Your task to perform on an android device: turn off data saver in the chrome app Image 0: 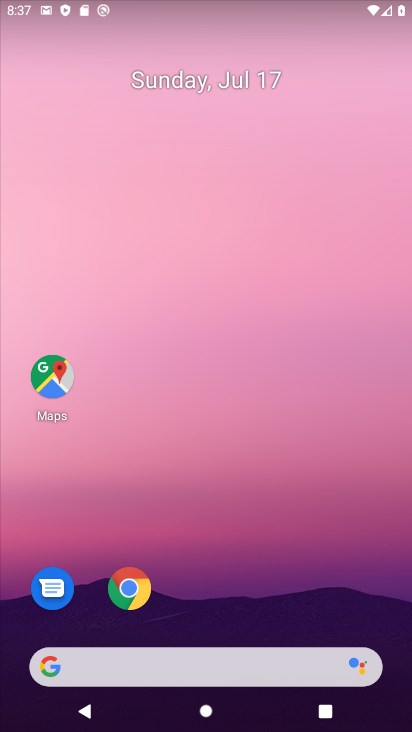
Step 0: press home button
Your task to perform on an android device: turn off data saver in the chrome app Image 1: 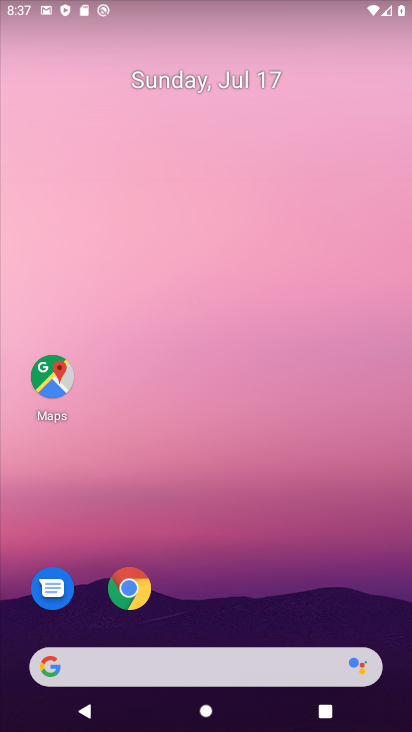
Step 1: drag from (289, 395) to (215, 4)
Your task to perform on an android device: turn off data saver in the chrome app Image 2: 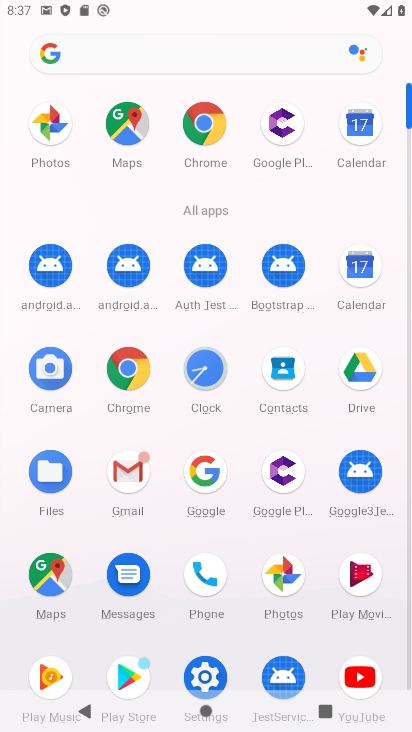
Step 2: click (207, 146)
Your task to perform on an android device: turn off data saver in the chrome app Image 3: 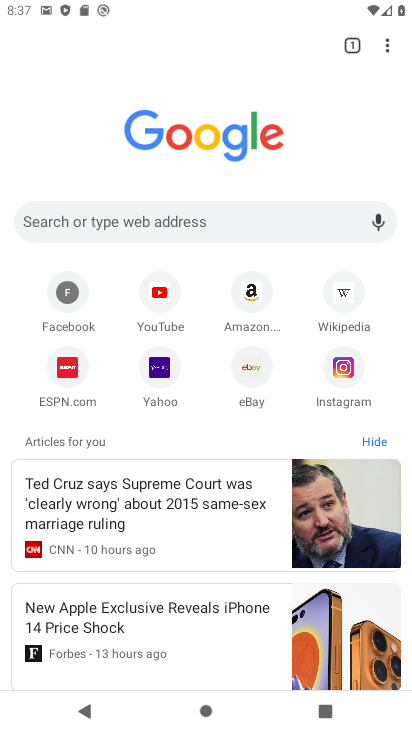
Step 3: drag from (392, 45) to (222, 382)
Your task to perform on an android device: turn off data saver in the chrome app Image 4: 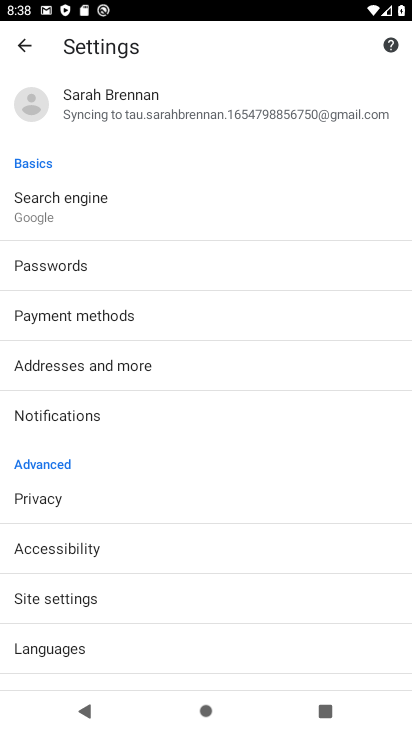
Step 4: drag from (46, 610) to (112, 274)
Your task to perform on an android device: turn off data saver in the chrome app Image 5: 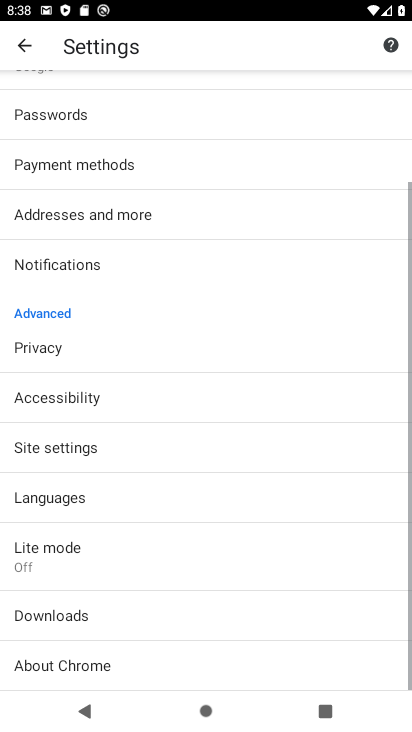
Step 5: click (53, 547)
Your task to perform on an android device: turn off data saver in the chrome app Image 6: 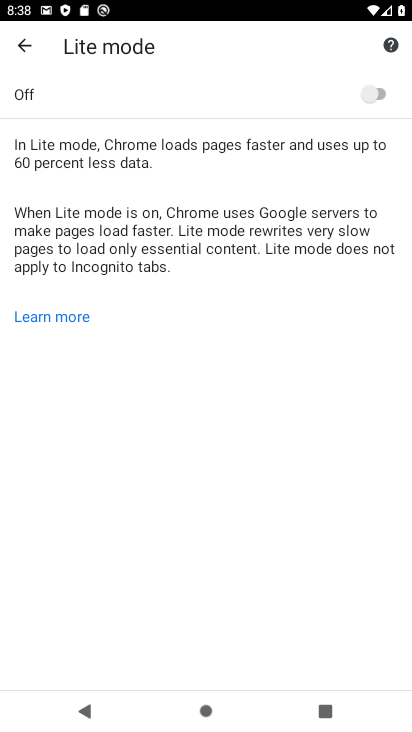
Step 6: task complete